Your task to perform on an android device: check android version Image 0: 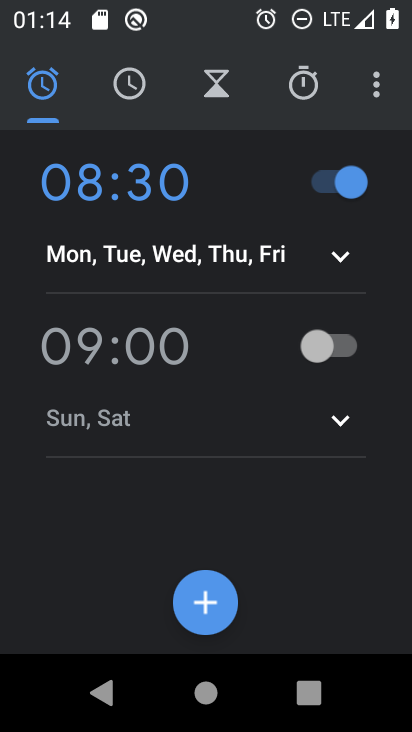
Step 0: press home button
Your task to perform on an android device: check android version Image 1: 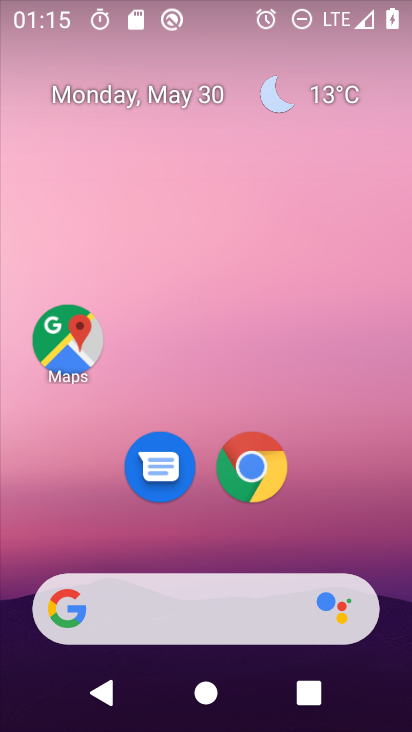
Step 1: drag from (199, 566) to (144, 137)
Your task to perform on an android device: check android version Image 2: 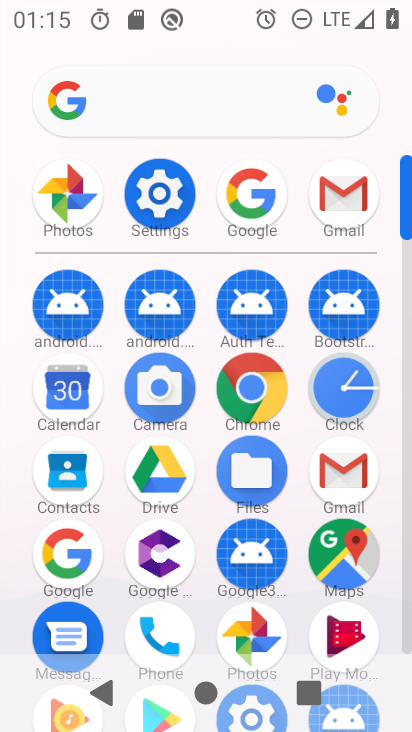
Step 2: click (178, 177)
Your task to perform on an android device: check android version Image 3: 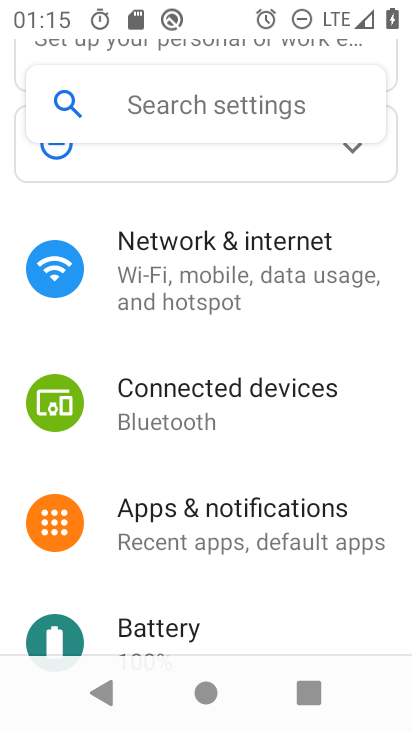
Step 3: drag from (217, 562) to (214, 320)
Your task to perform on an android device: check android version Image 4: 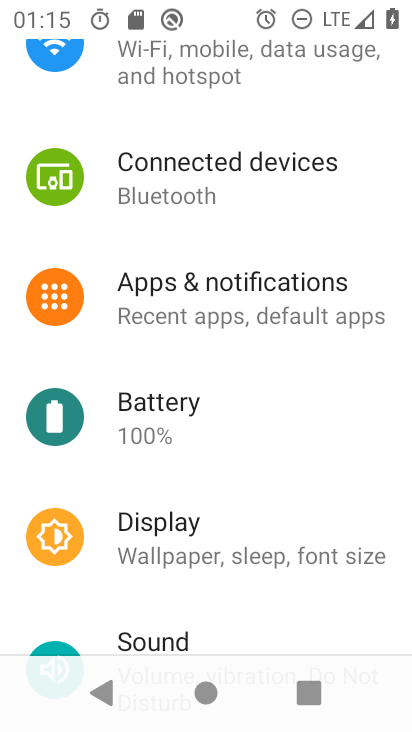
Step 4: drag from (215, 564) to (221, 328)
Your task to perform on an android device: check android version Image 5: 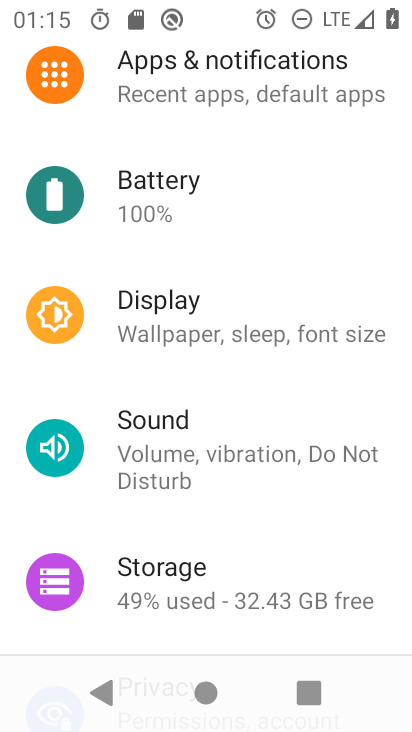
Step 5: drag from (218, 518) to (182, 184)
Your task to perform on an android device: check android version Image 6: 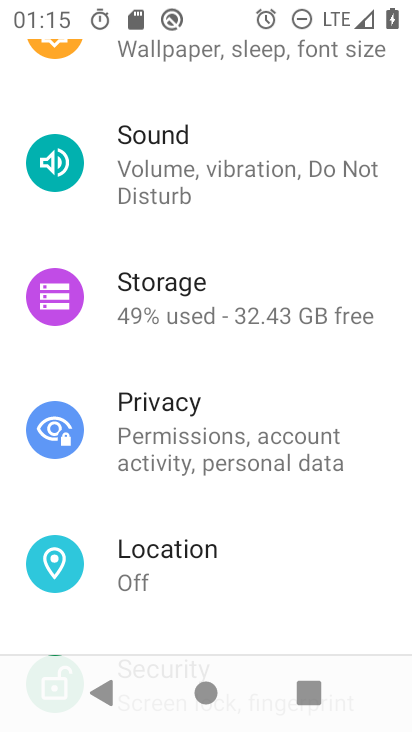
Step 6: drag from (182, 538) to (144, 204)
Your task to perform on an android device: check android version Image 7: 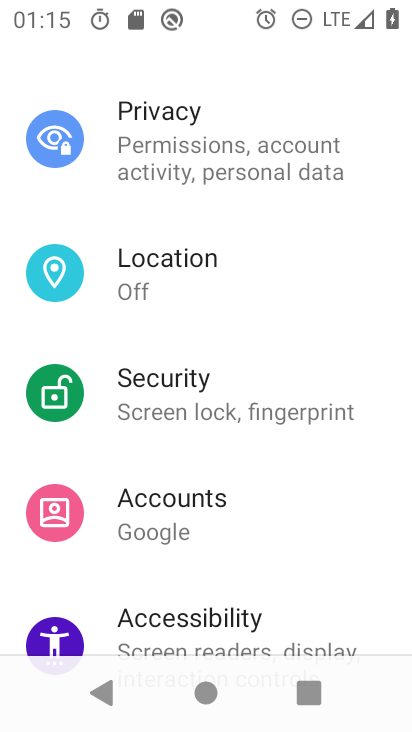
Step 7: drag from (200, 560) to (185, 317)
Your task to perform on an android device: check android version Image 8: 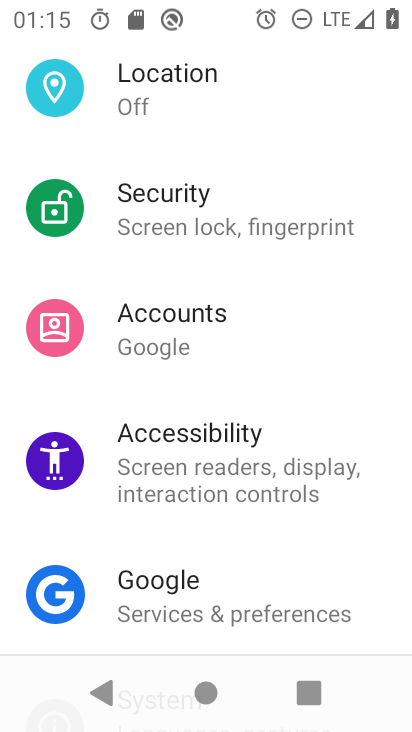
Step 8: drag from (226, 574) to (200, 286)
Your task to perform on an android device: check android version Image 9: 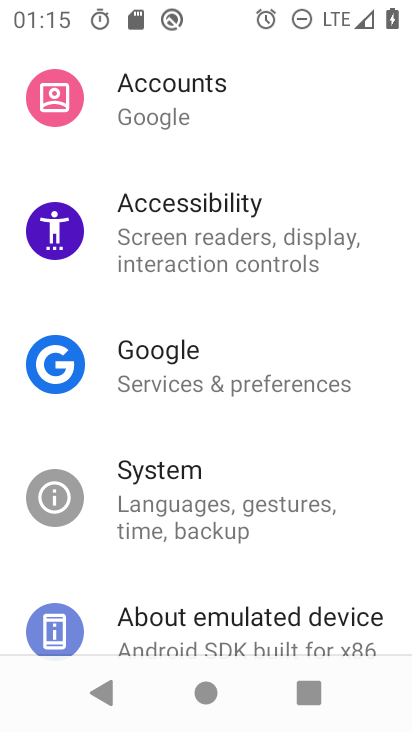
Step 9: drag from (230, 551) to (208, 314)
Your task to perform on an android device: check android version Image 10: 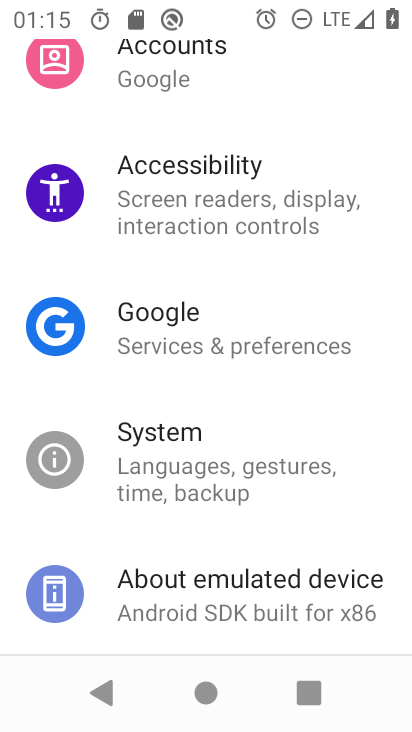
Step 10: drag from (243, 557) to (226, 382)
Your task to perform on an android device: check android version Image 11: 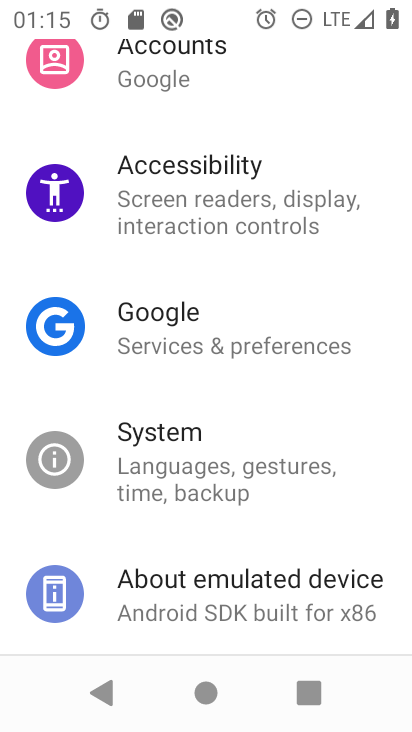
Step 11: click (253, 581)
Your task to perform on an android device: check android version Image 12: 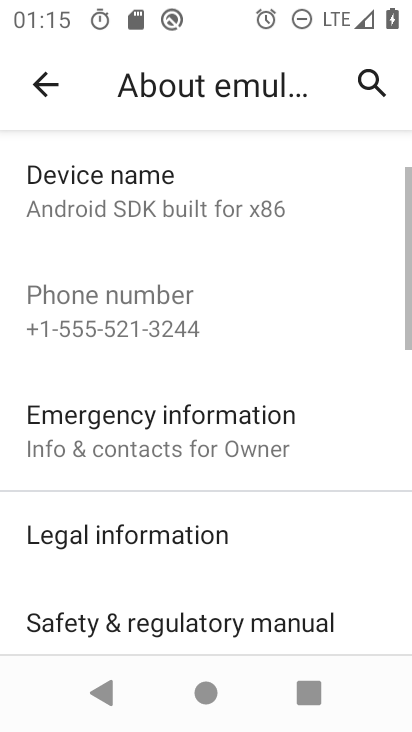
Step 12: drag from (242, 549) to (204, 234)
Your task to perform on an android device: check android version Image 13: 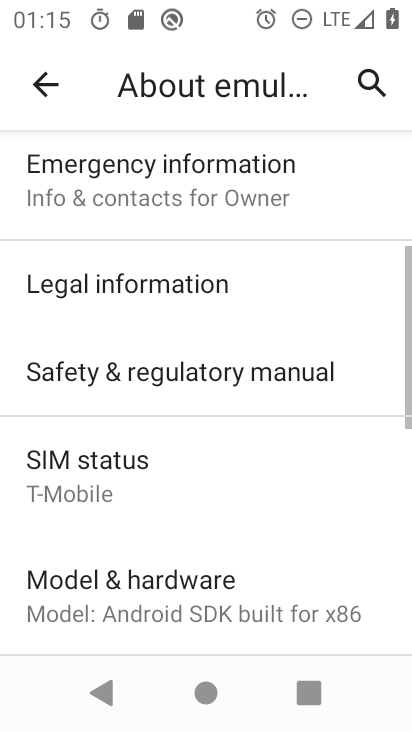
Step 13: drag from (203, 564) to (187, 349)
Your task to perform on an android device: check android version Image 14: 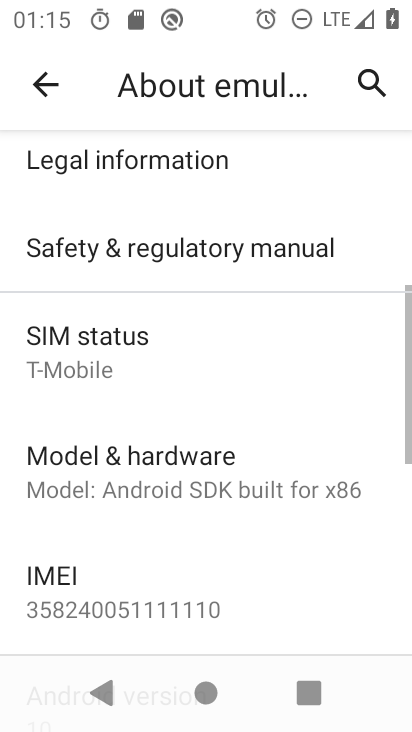
Step 14: drag from (208, 573) to (215, 342)
Your task to perform on an android device: check android version Image 15: 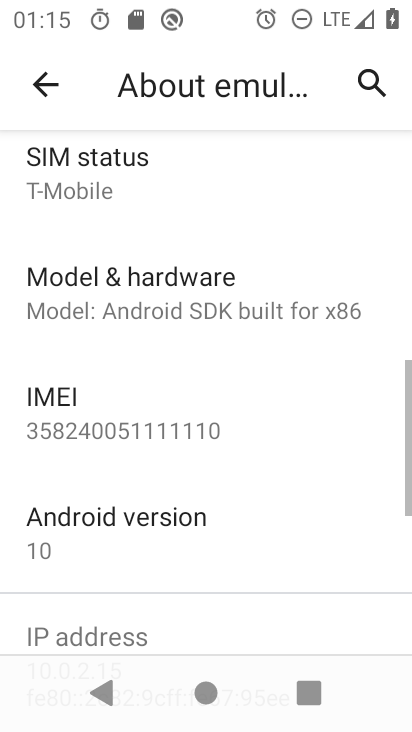
Step 15: click (226, 532)
Your task to perform on an android device: check android version Image 16: 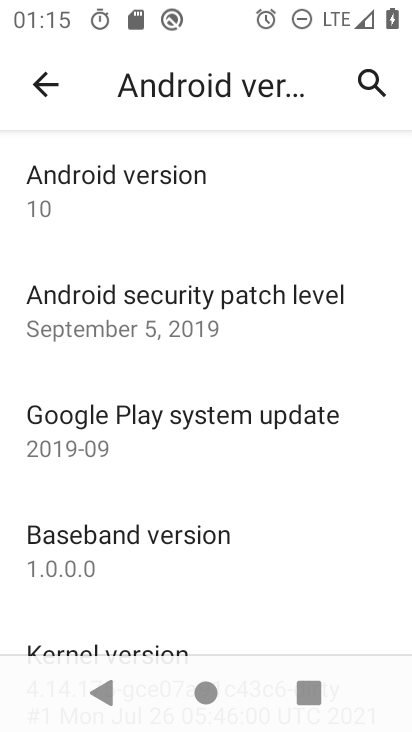
Step 16: click (224, 203)
Your task to perform on an android device: check android version Image 17: 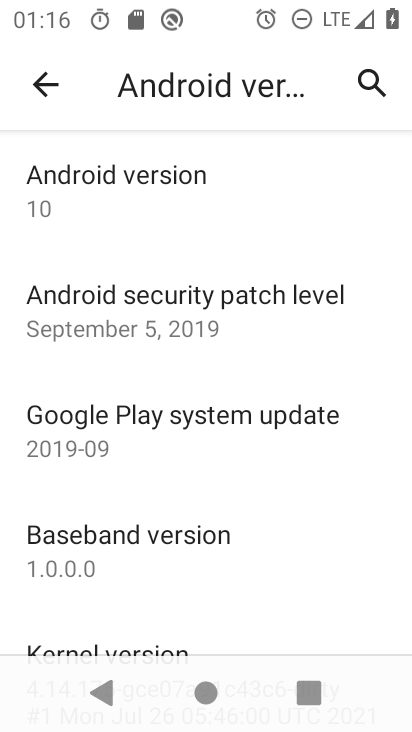
Step 17: click (78, 179)
Your task to perform on an android device: check android version Image 18: 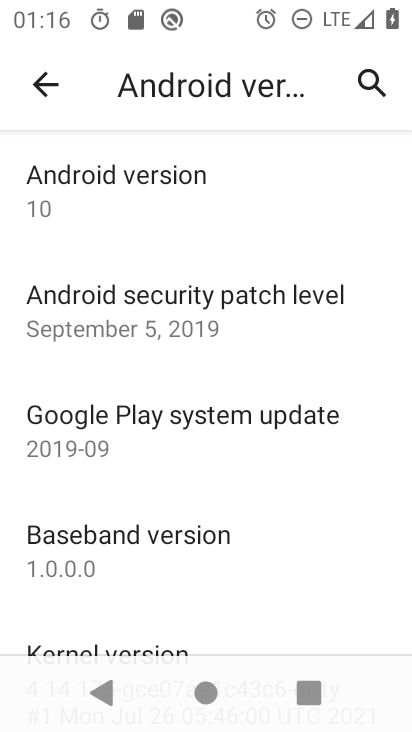
Step 18: task complete